Your task to perform on an android device: Add "razer thresher" to the cart on bestbuy Image 0: 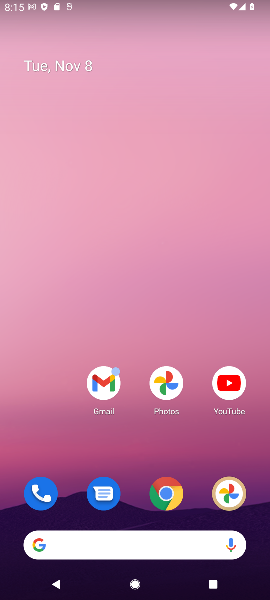
Step 0: click (165, 490)
Your task to perform on an android device: Add "razer thresher" to the cart on bestbuy Image 1: 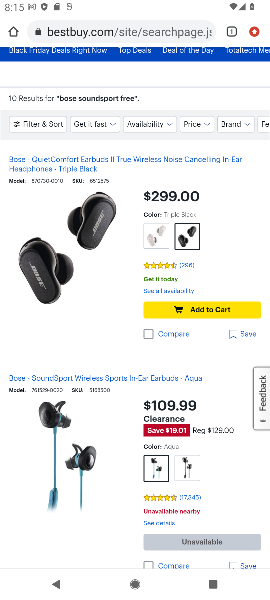
Step 1: drag from (95, 174) to (104, 436)
Your task to perform on an android device: Add "razer thresher" to the cart on bestbuy Image 2: 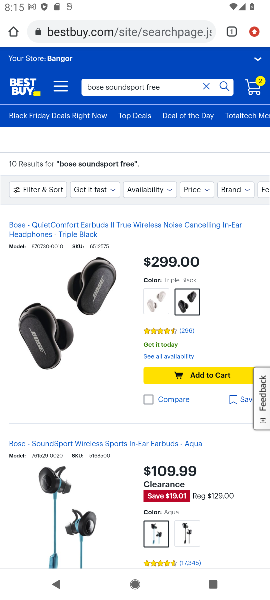
Step 2: click (140, 89)
Your task to perform on an android device: Add "razer thresher" to the cart on bestbuy Image 3: 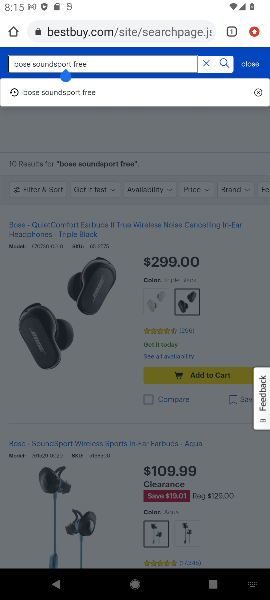
Step 3: click (207, 66)
Your task to perform on an android device: Add "razer thresher" to the cart on bestbuy Image 4: 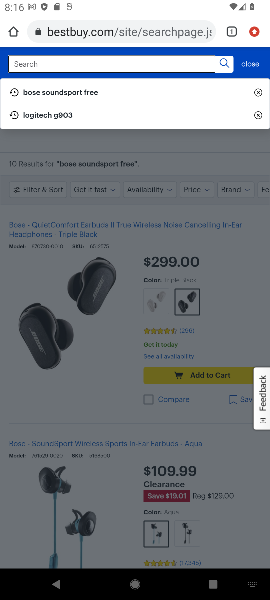
Step 4: click (94, 57)
Your task to perform on an android device: Add "razer thresher" to the cart on bestbuy Image 5: 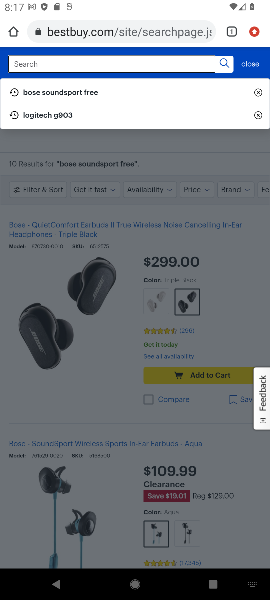
Step 5: type "l"
Your task to perform on an android device: Add "razer thresher" to the cart on bestbuy Image 6: 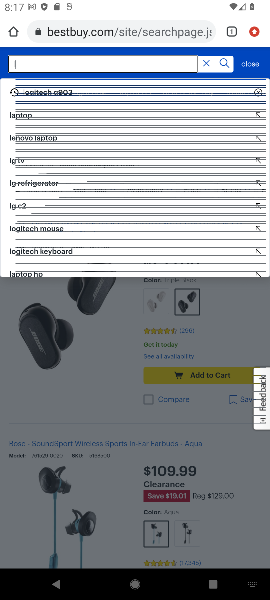
Step 6: type "razer thresher"
Your task to perform on an android device: Add "razer thresher" to the cart on bestbuy Image 7: 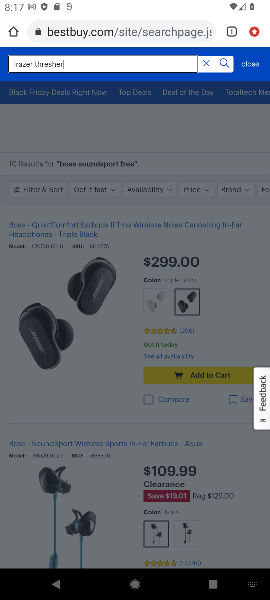
Step 7: click (227, 62)
Your task to perform on an android device: Add "razer thresher" to the cart on bestbuy Image 8: 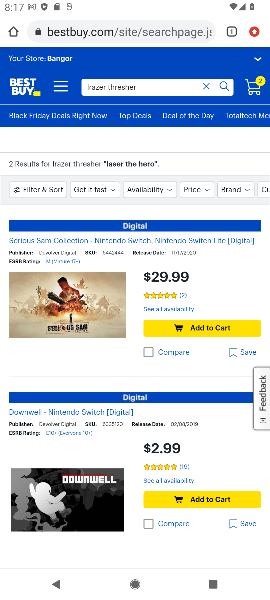
Step 8: task complete